Your task to perform on an android device: Go to Yahoo.com Image 0: 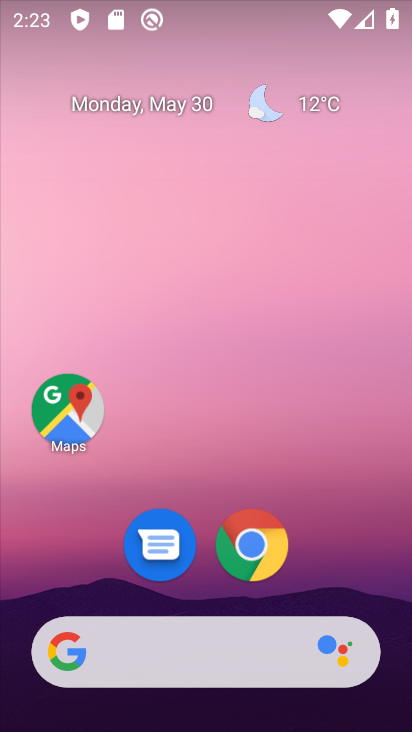
Step 0: click (256, 544)
Your task to perform on an android device: Go to Yahoo.com Image 1: 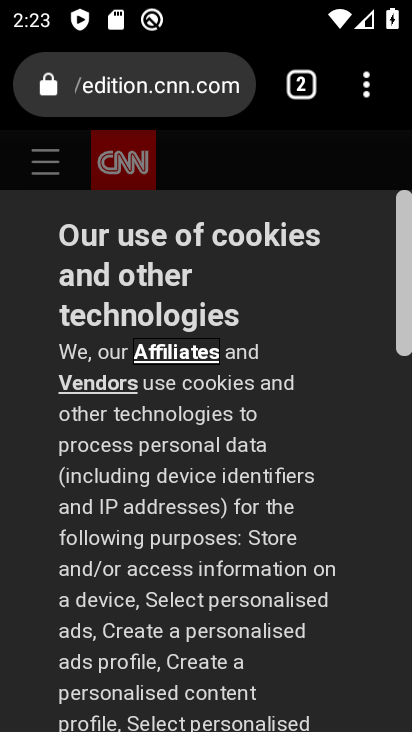
Step 1: click (292, 76)
Your task to perform on an android device: Go to Yahoo.com Image 2: 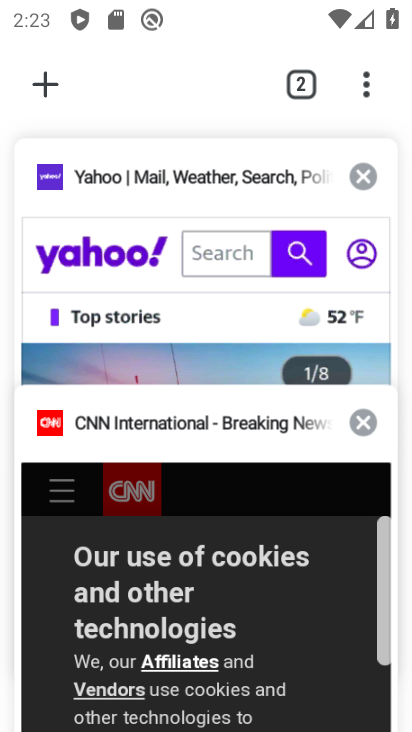
Step 2: click (67, 282)
Your task to perform on an android device: Go to Yahoo.com Image 3: 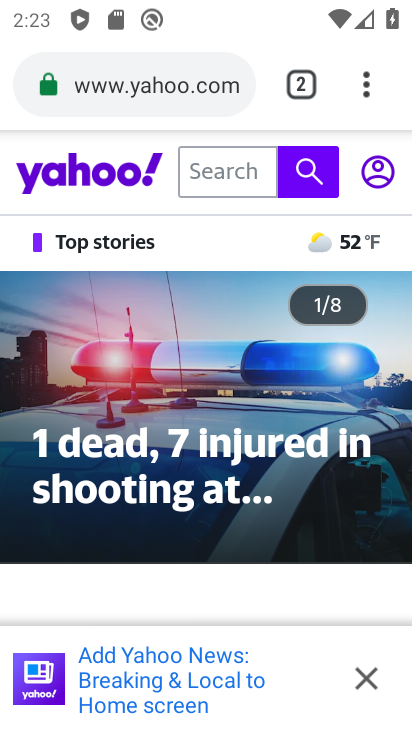
Step 3: task complete